Your task to perform on an android device: Check the weather Image 0: 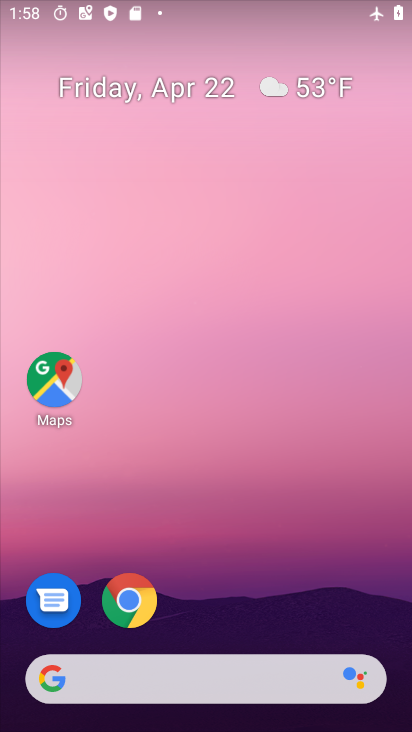
Step 0: click (274, 88)
Your task to perform on an android device: Check the weather Image 1: 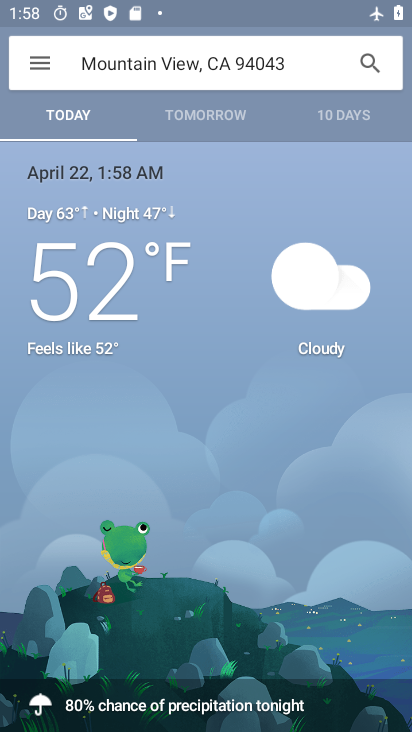
Step 1: task complete